Your task to perform on an android device: Search for the best coffee tables on Crate & Barrel Image 0: 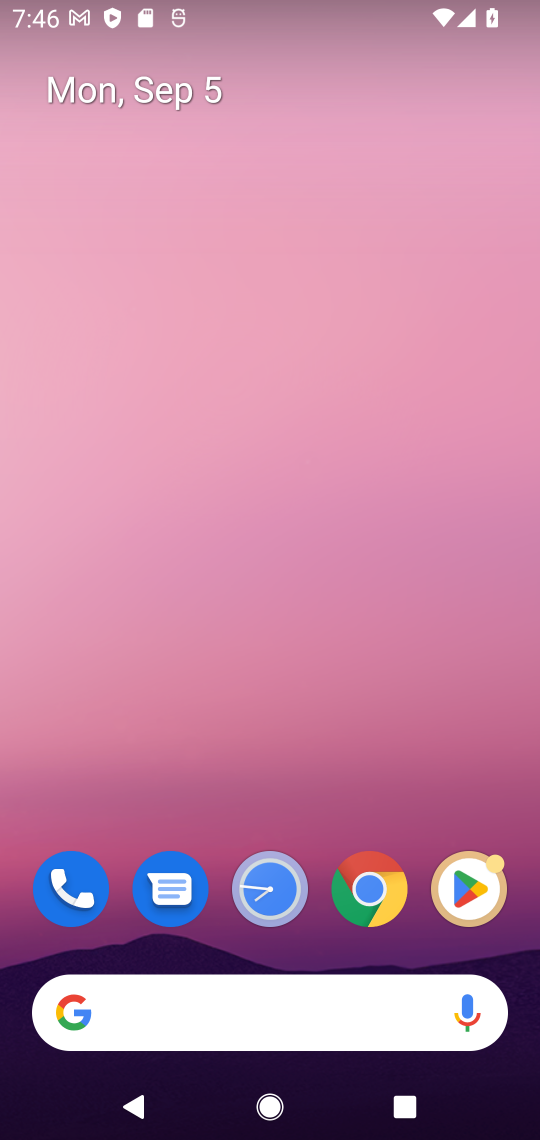
Step 0: click (209, 1025)
Your task to perform on an android device: Search for the best coffee tables on Crate & Barrel Image 1: 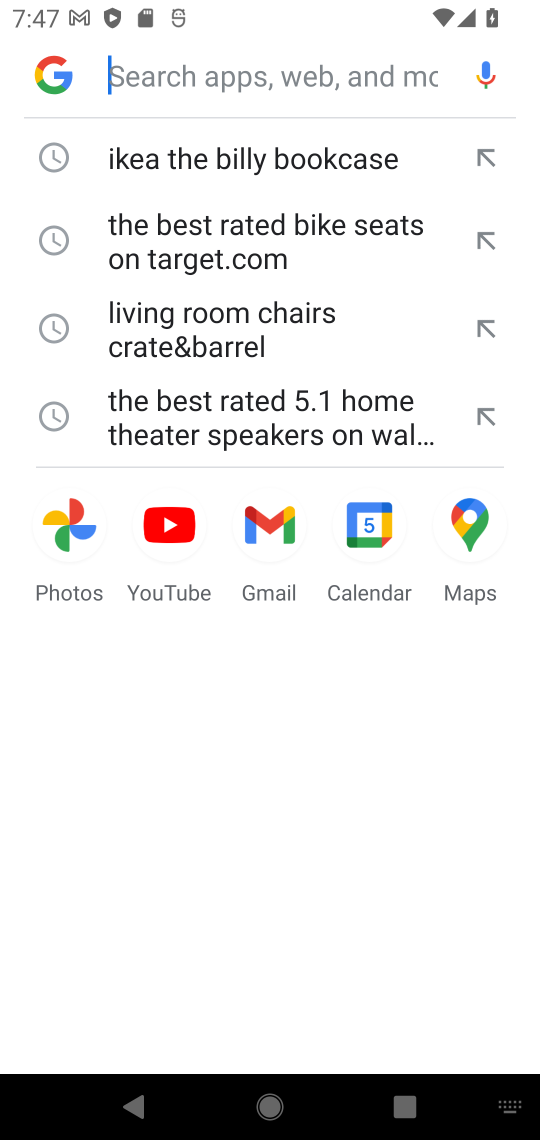
Step 1: type "the best coffee tables on Crate & Barrel"
Your task to perform on an android device: Search for the best coffee tables on Crate & Barrel Image 2: 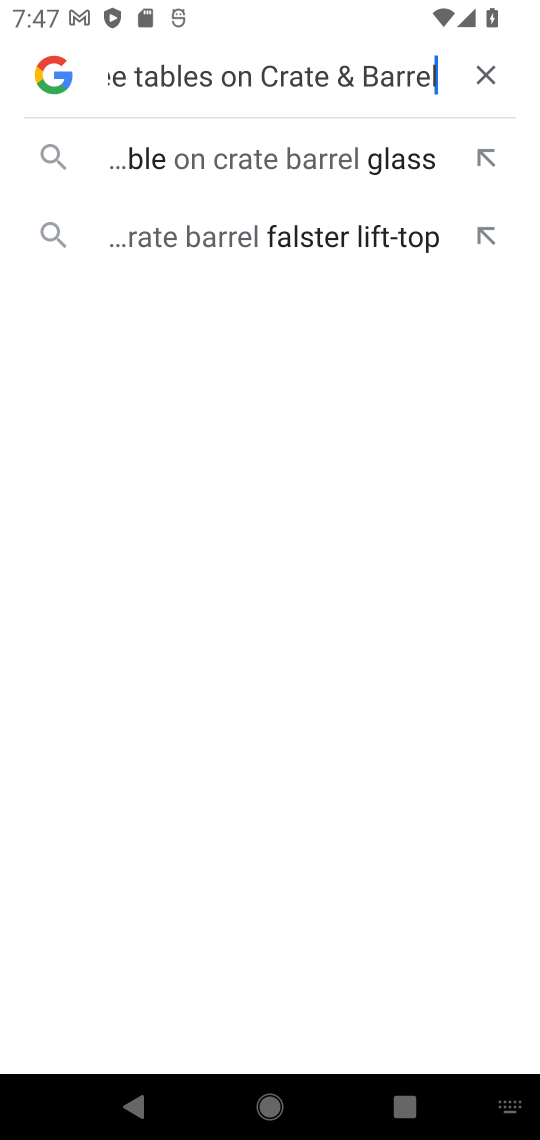
Step 2: click (225, 167)
Your task to perform on an android device: Search for the best coffee tables on Crate & Barrel Image 3: 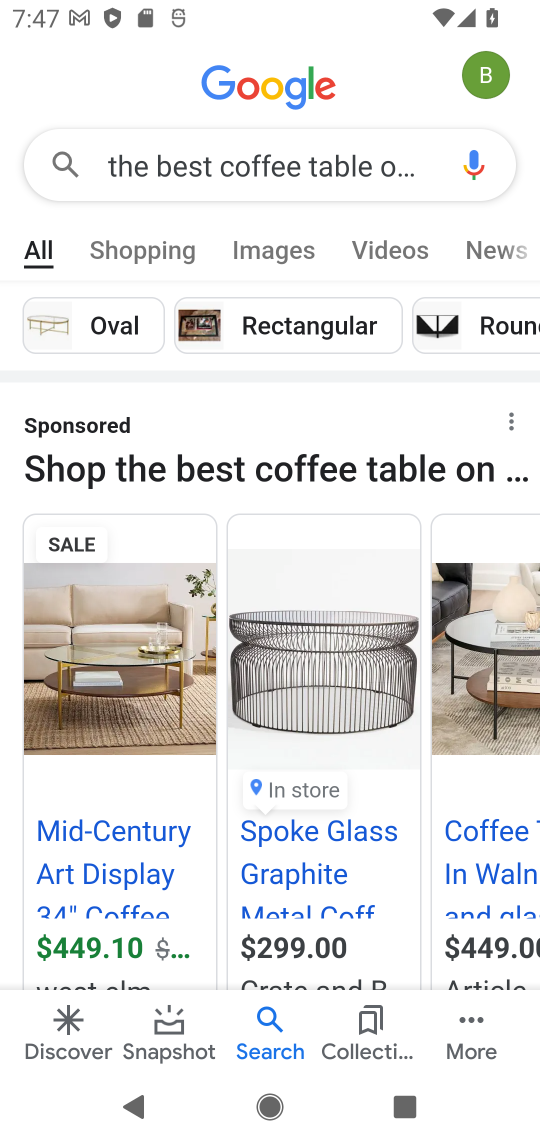
Step 3: task complete